Your task to perform on an android device: Go to internet settings Image 0: 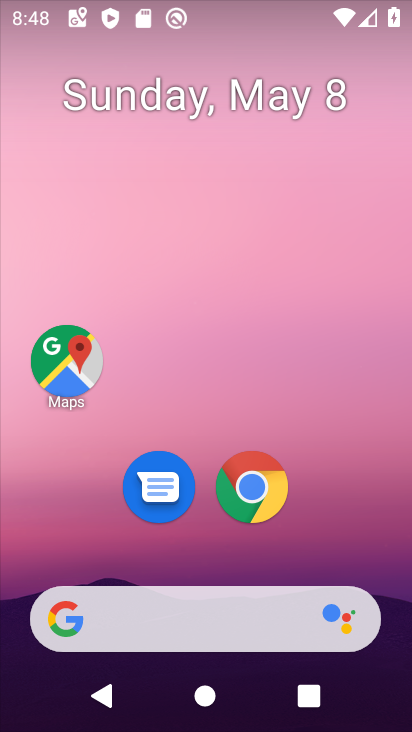
Step 0: drag from (213, 569) to (218, 100)
Your task to perform on an android device: Go to internet settings Image 1: 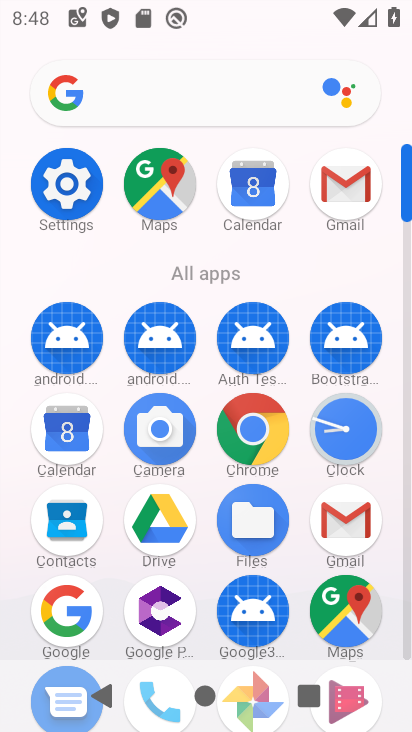
Step 1: click (88, 191)
Your task to perform on an android device: Go to internet settings Image 2: 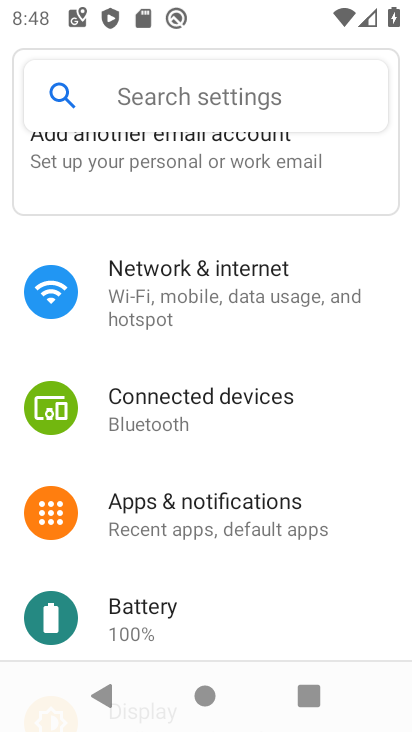
Step 2: click (205, 306)
Your task to perform on an android device: Go to internet settings Image 3: 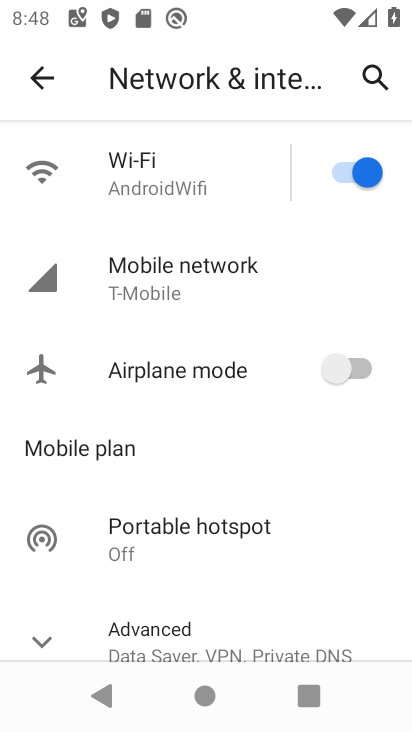
Step 3: click (168, 284)
Your task to perform on an android device: Go to internet settings Image 4: 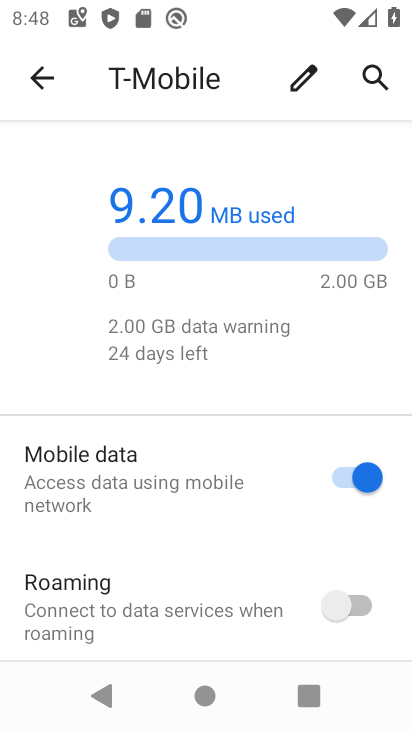
Step 4: task complete